Your task to perform on an android device: Go to Google maps Image 0: 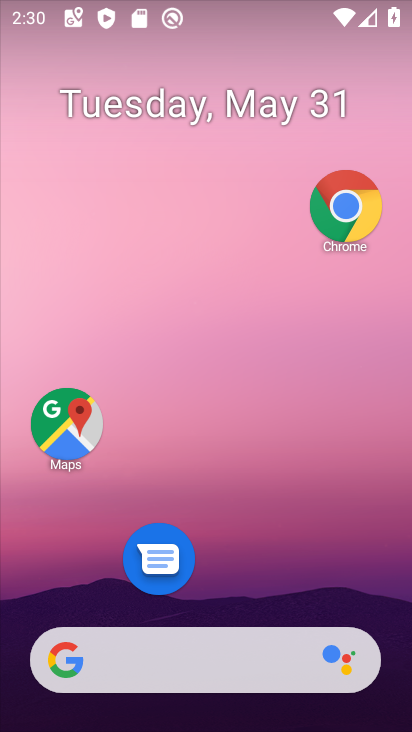
Step 0: drag from (250, 558) to (225, 340)
Your task to perform on an android device: Go to Google maps Image 1: 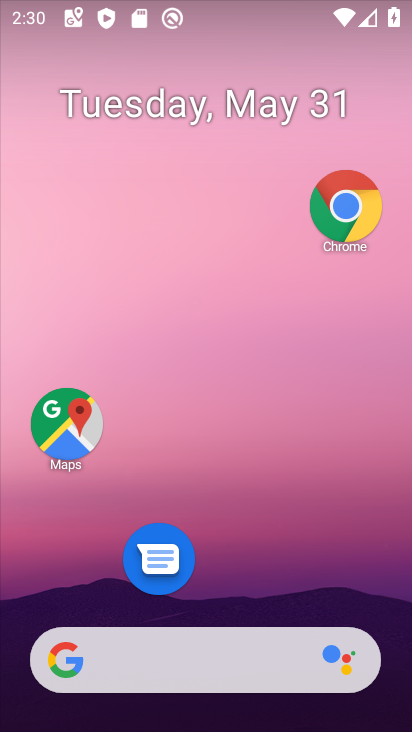
Step 1: drag from (236, 524) to (281, 215)
Your task to perform on an android device: Go to Google maps Image 2: 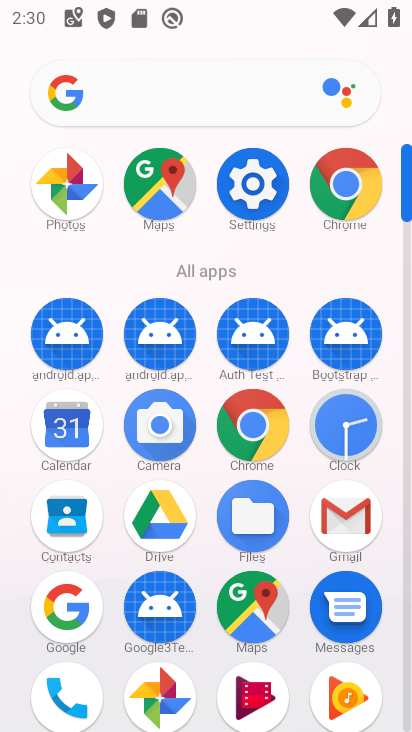
Step 2: drag from (282, 260) to (253, 0)
Your task to perform on an android device: Go to Google maps Image 3: 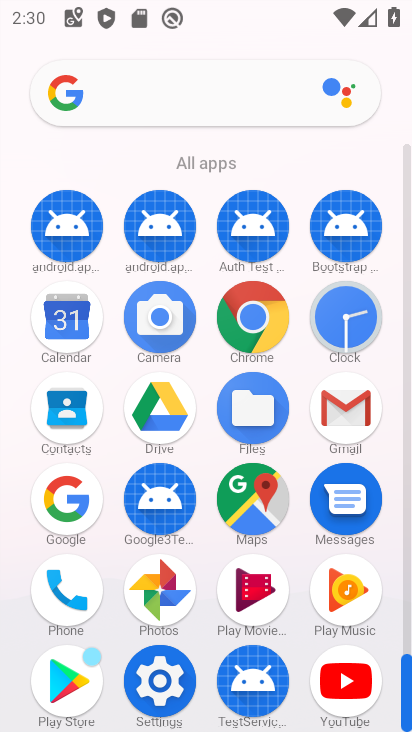
Step 3: click (249, 515)
Your task to perform on an android device: Go to Google maps Image 4: 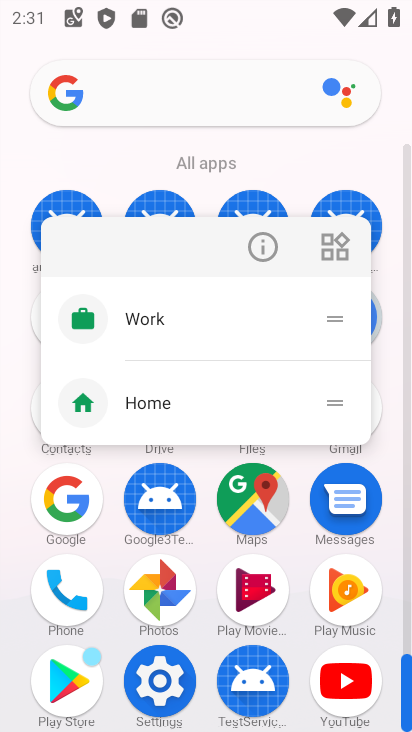
Step 4: click (237, 501)
Your task to perform on an android device: Go to Google maps Image 5: 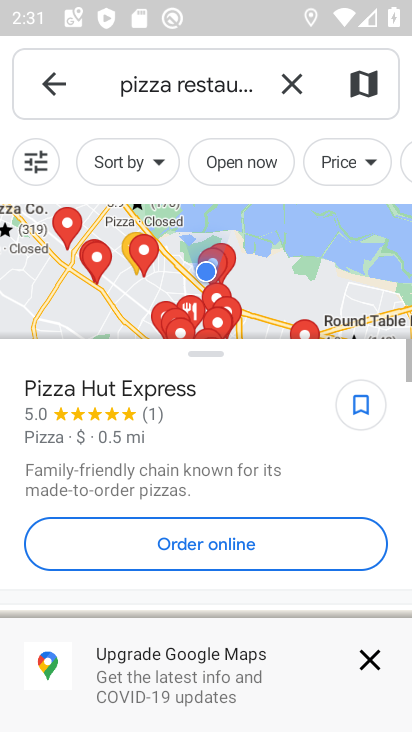
Step 5: task complete